Your task to perform on an android device: turn on location history Image 0: 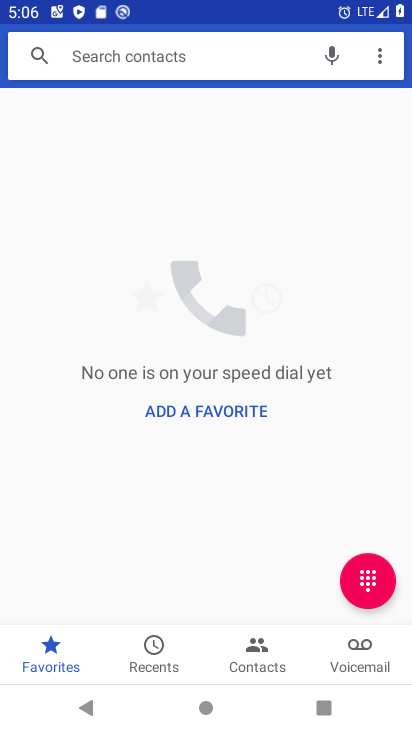
Step 0: press home button
Your task to perform on an android device: turn on location history Image 1: 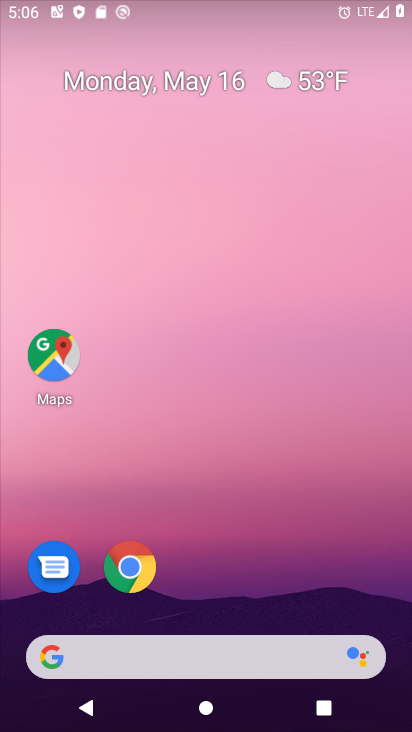
Step 1: drag from (333, 624) to (296, 38)
Your task to perform on an android device: turn on location history Image 2: 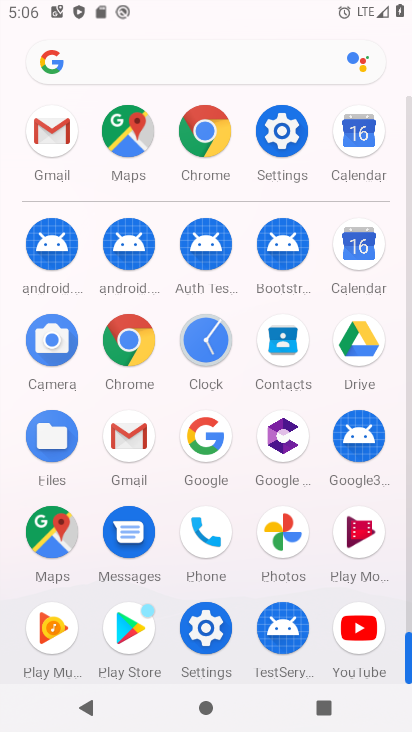
Step 2: click (272, 139)
Your task to perform on an android device: turn on location history Image 3: 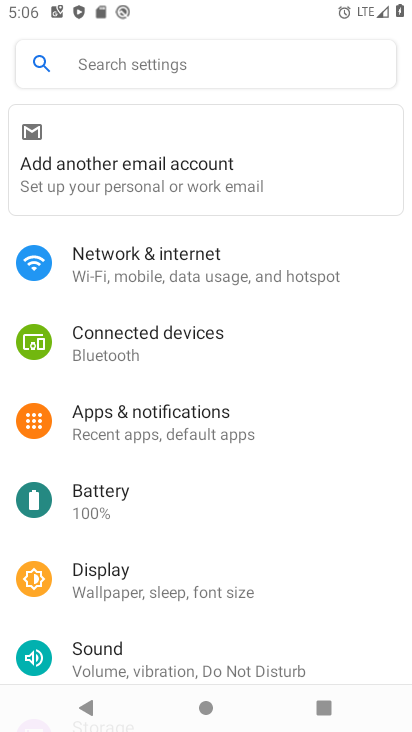
Step 3: drag from (227, 615) to (225, 68)
Your task to perform on an android device: turn on location history Image 4: 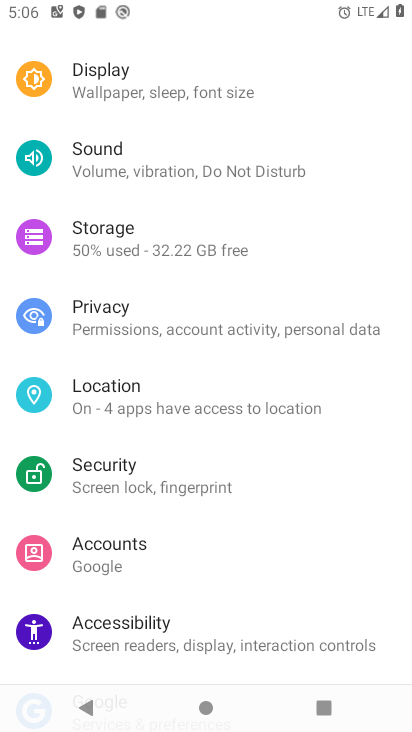
Step 4: click (192, 416)
Your task to perform on an android device: turn on location history Image 5: 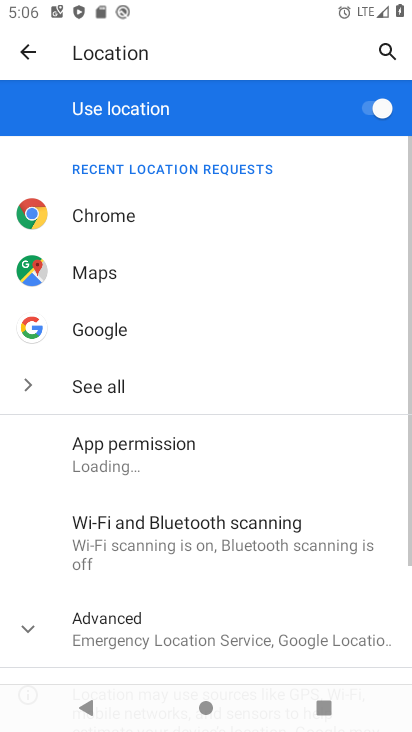
Step 5: drag from (324, 571) to (345, 95)
Your task to perform on an android device: turn on location history Image 6: 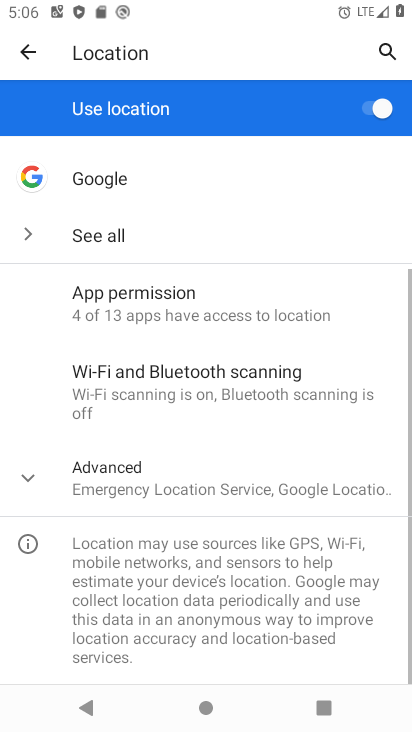
Step 6: click (161, 493)
Your task to perform on an android device: turn on location history Image 7: 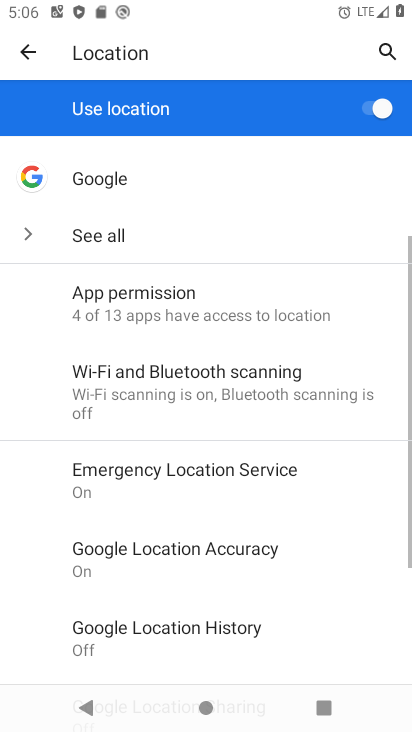
Step 7: drag from (249, 628) to (262, 230)
Your task to perform on an android device: turn on location history Image 8: 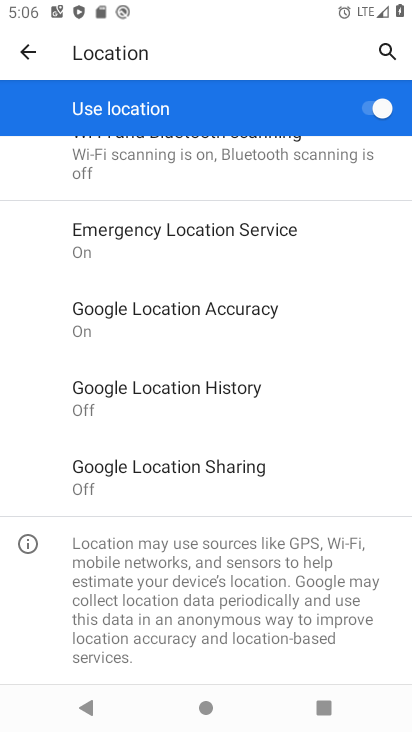
Step 8: click (237, 394)
Your task to perform on an android device: turn on location history Image 9: 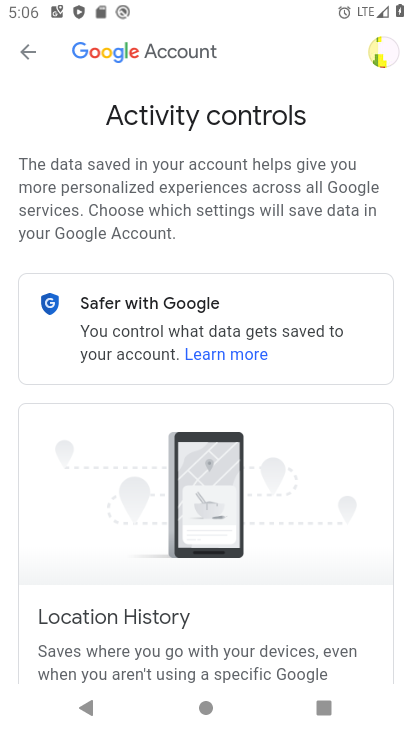
Step 9: drag from (272, 599) to (309, 87)
Your task to perform on an android device: turn on location history Image 10: 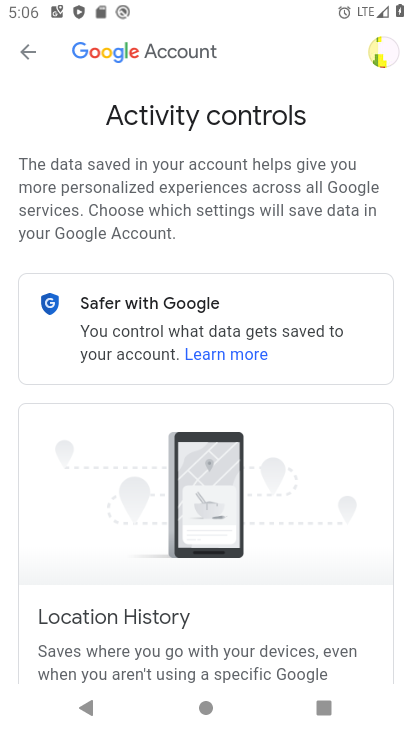
Step 10: drag from (288, 621) to (317, 86)
Your task to perform on an android device: turn on location history Image 11: 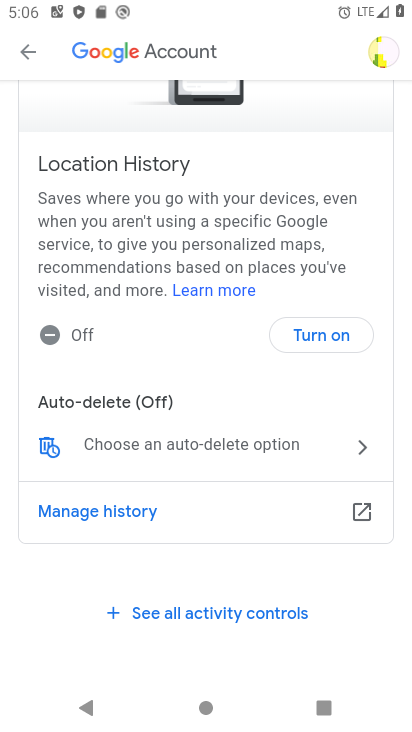
Step 11: click (312, 334)
Your task to perform on an android device: turn on location history Image 12: 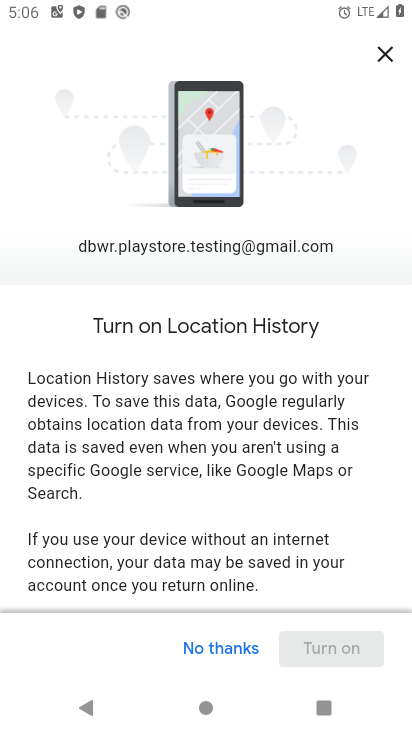
Step 12: drag from (292, 553) to (290, 5)
Your task to perform on an android device: turn on location history Image 13: 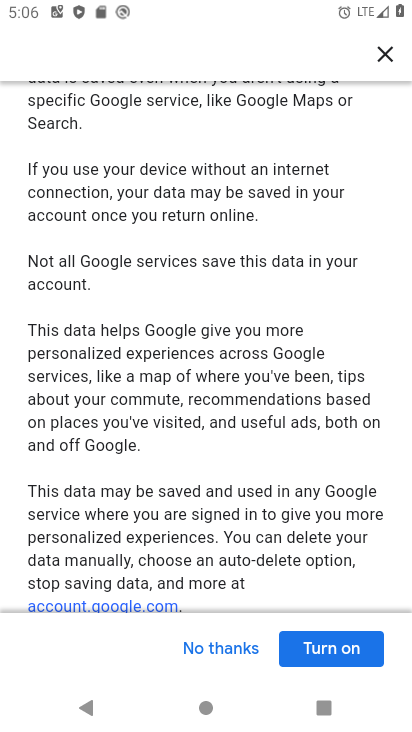
Step 13: click (322, 658)
Your task to perform on an android device: turn on location history Image 14: 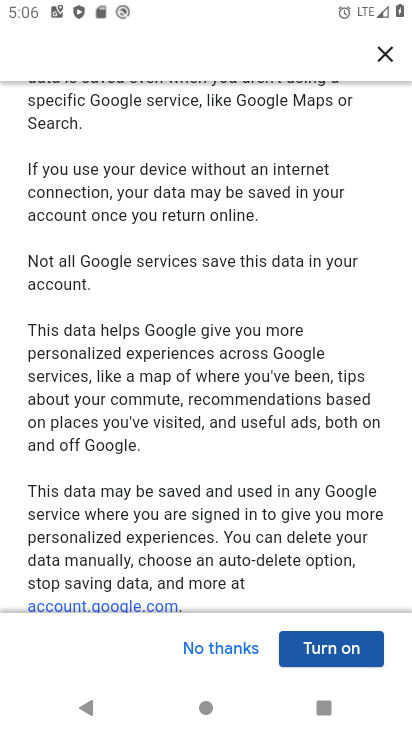
Step 14: click (302, 659)
Your task to perform on an android device: turn on location history Image 15: 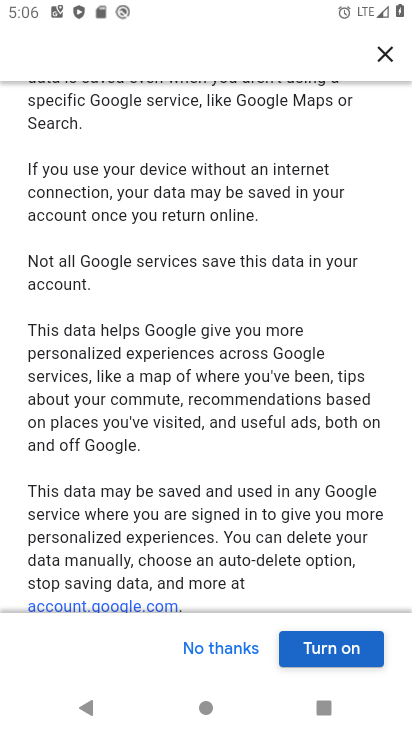
Step 15: click (302, 659)
Your task to perform on an android device: turn on location history Image 16: 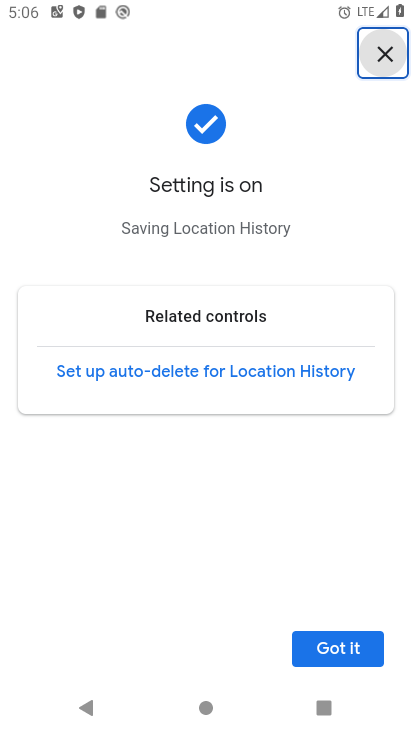
Step 16: task complete